Your task to perform on an android device: turn on priority inbox in the gmail app Image 0: 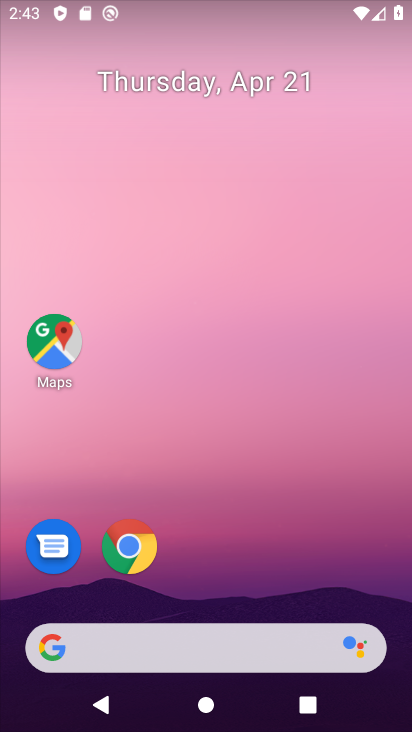
Step 0: drag from (325, 528) to (325, 31)
Your task to perform on an android device: turn on priority inbox in the gmail app Image 1: 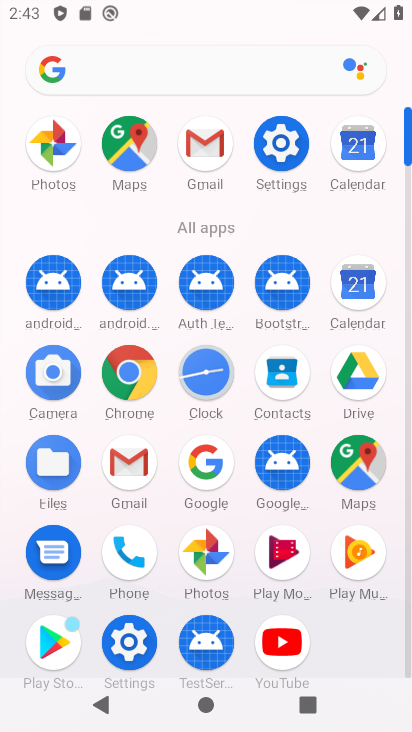
Step 1: click (210, 157)
Your task to perform on an android device: turn on priority inbox in the gmail app Image 2: 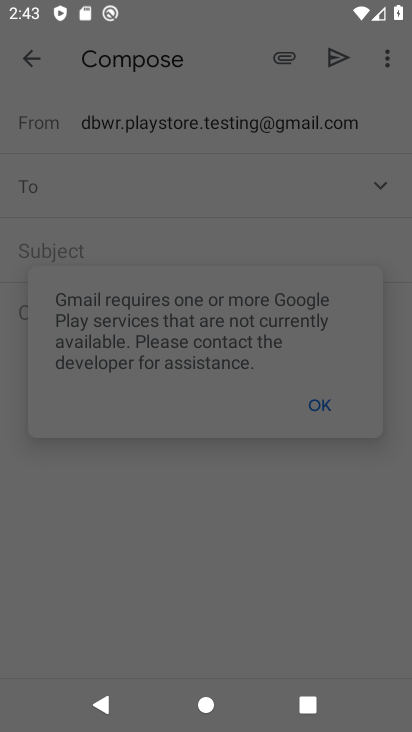
Step 2: click (329, 406)
Your task to perform on an android device: turn on priority inbox in the gmail app Image 3: 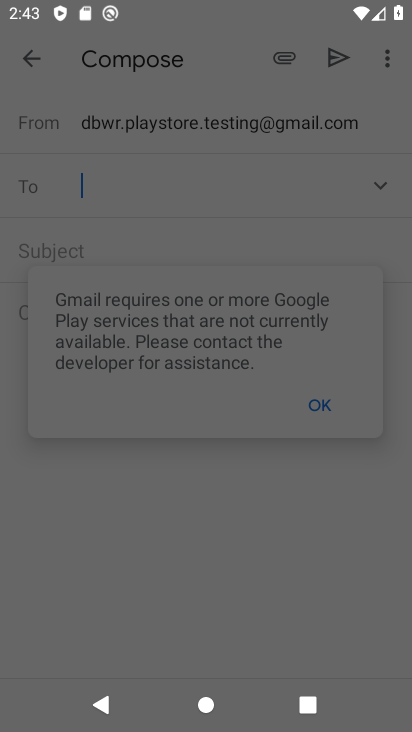
Step 3: click (328, 405)
Your task to perform on an android device: turn on priority inbox in the gmail app Image 4: 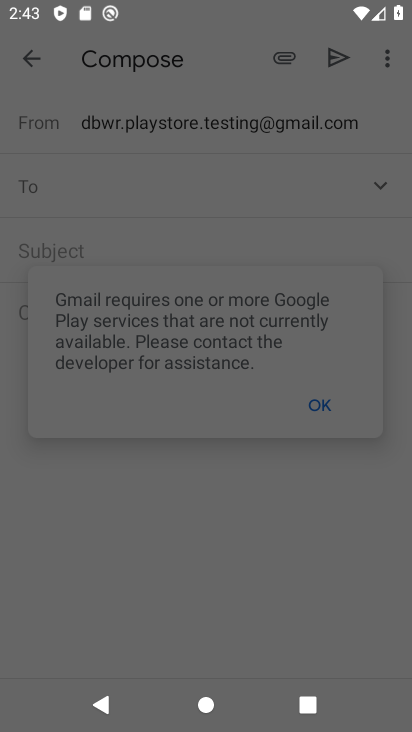
Step 4: click (246, 527)
Your task to perform on an android device: turn on priority inbox in the gmail app Image 5: 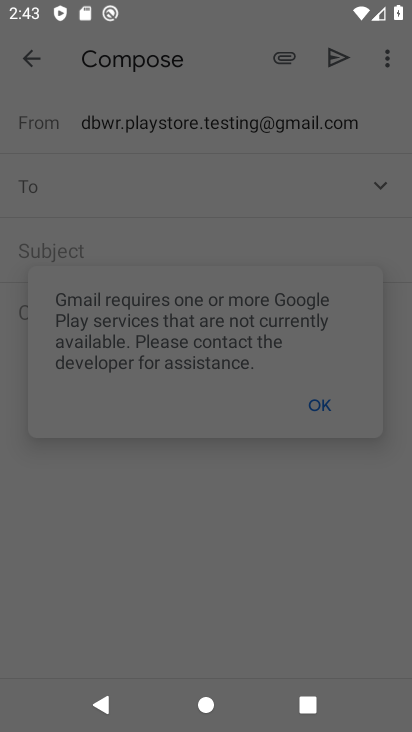
Step 5: click (102, 703)
Your task to perform on an android device: turn on priority inbox in the gmail app Image 6: 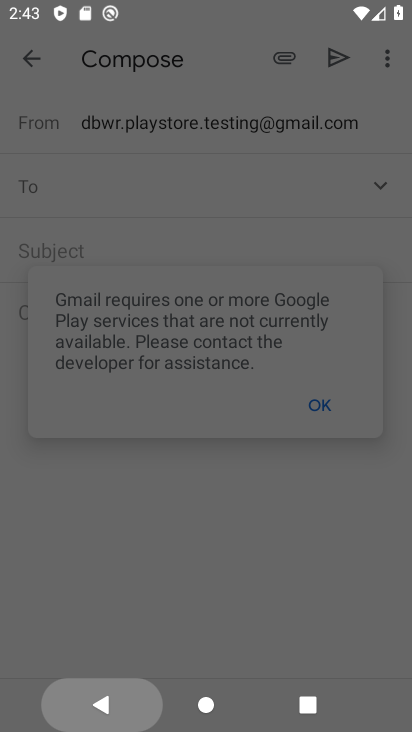
Step 6: click (102, 703)
Your task to perform on an android device: turn on priority inbox in the gmail app Image 7: 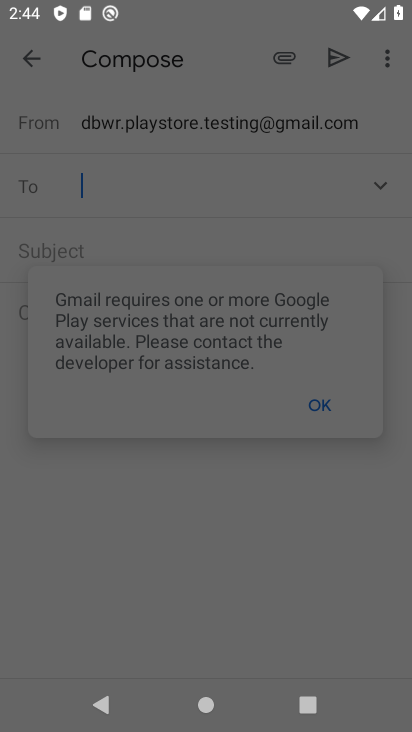
Step 7: click (94, 707)
Your task to perform on an android device: turn on priority inbox in the gmail app Image 8: 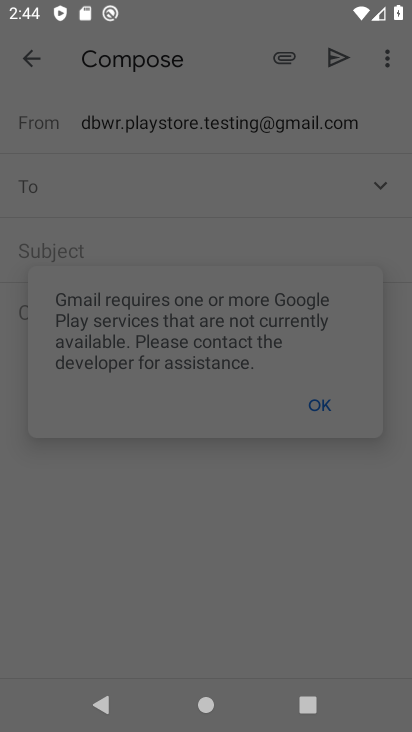
Step 8: click (87, 709)
Your task to perform on an android device: turn on priority inbox in the gmail app Image 9: 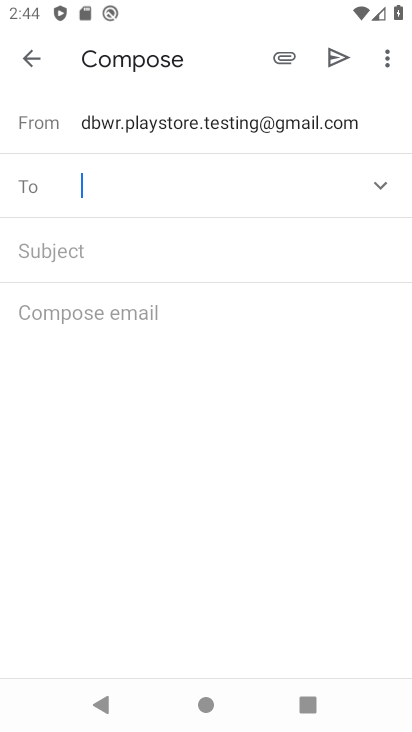
Step 9: press back button
Your task to perform on an android device: turn on priority inbox in the gmail app Image 10: 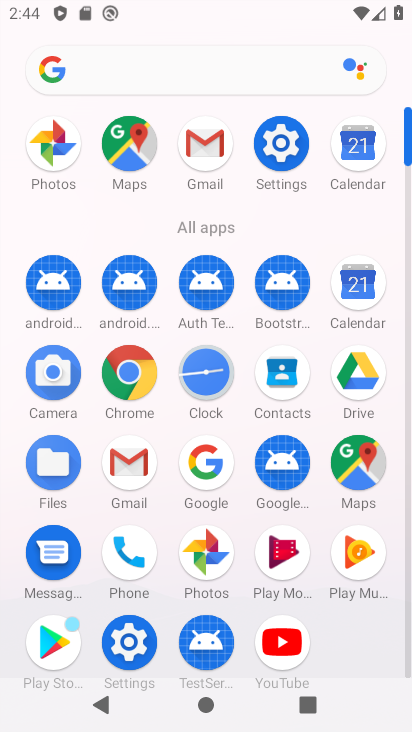
Step 10: click (199, 161)
Your task to perform on an android device: turn on priority inbox in the gmail app Image 11: 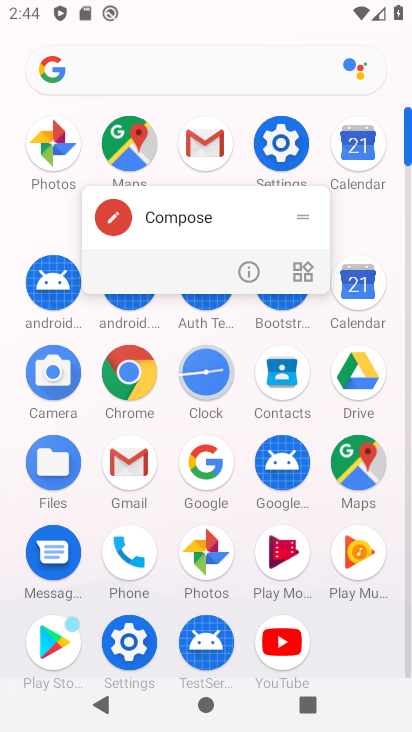
Step 11: click (188, 139)
Your task to perform on an android device: turn on priority inbox in the gmail app Image 12: 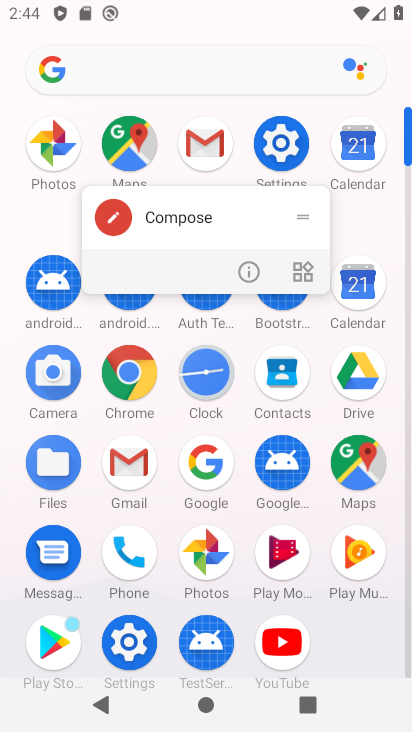
Step 12: click (195, 132)
Your task to perform on an android device: turn on priority inbox in the gmail app Image 13: 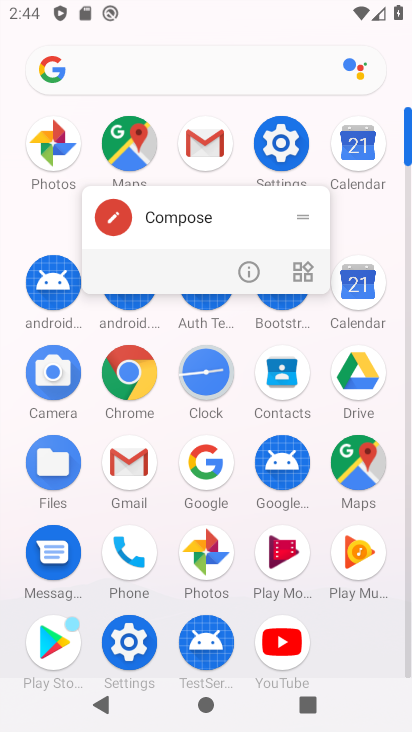
Step 13: click (196, 144)
Your task to perform on an android device: turn on priority inbox in the gmail app Image 14: 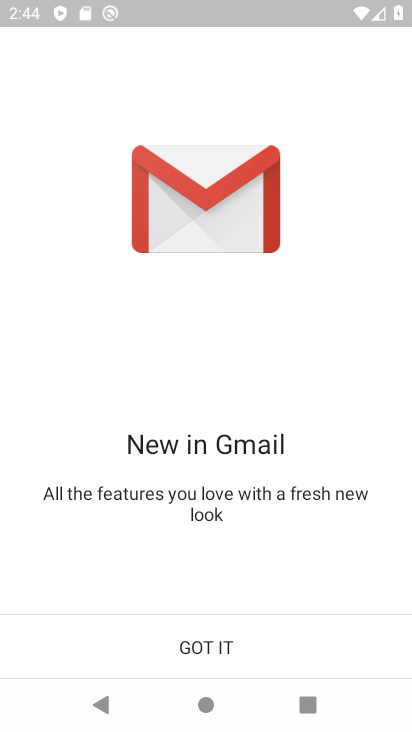
Step 14: click (200, 645)
Your task to perform on an android device: turn on priority inbox in the gmail app Image 15: 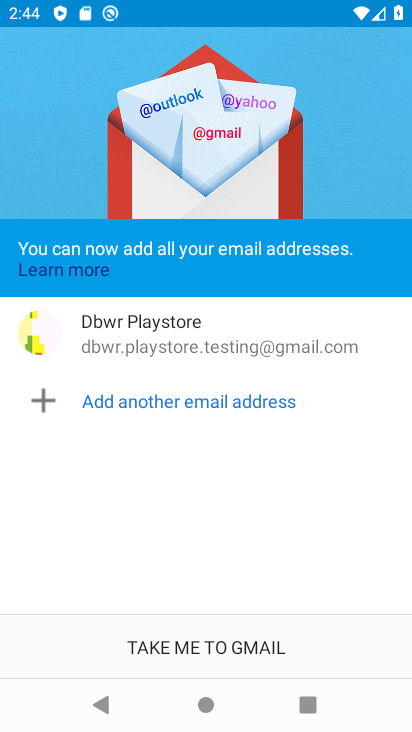
Step 15: click (216, 645)
Your task to perform on an android device: turn on priority inbox in the gmail app Image 16: 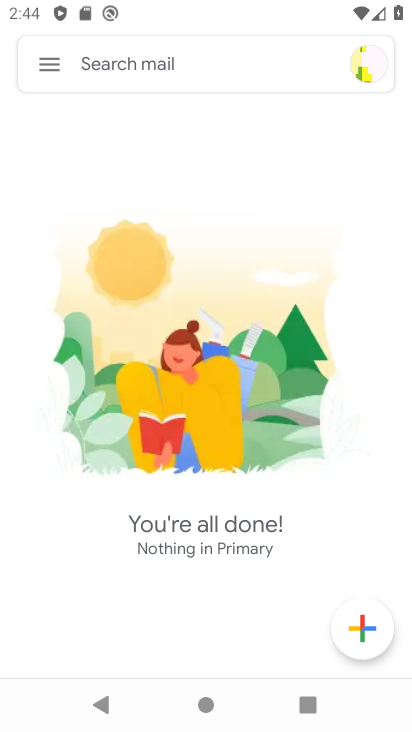
Step 16: click (60, 64)
Your task to perform on an android device: turn on priority inbox in the gmail app Image 17: 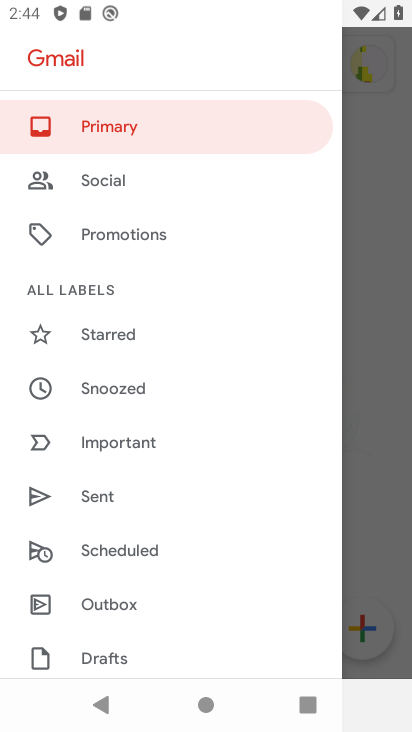
Step 17: drag from (204, 610) to (203, 238)
Your task to perform on an android device: turn on priority inbox in the gmail app Image 18: 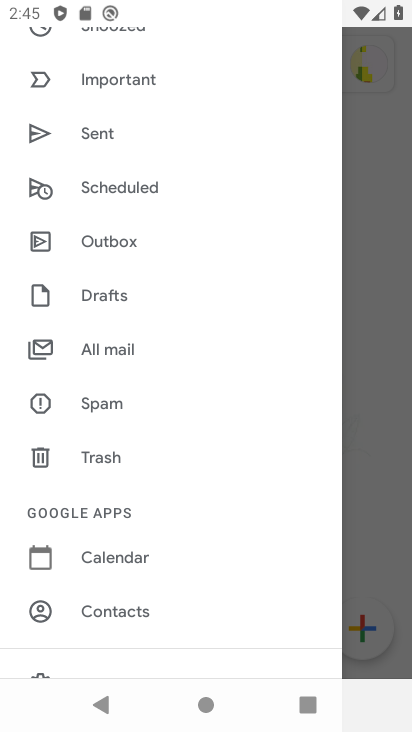
Step 18: drag from (225, 598) to (175, 241)
Your task to perform on an android device: turn on priority inbox in the gmail app Image 19: 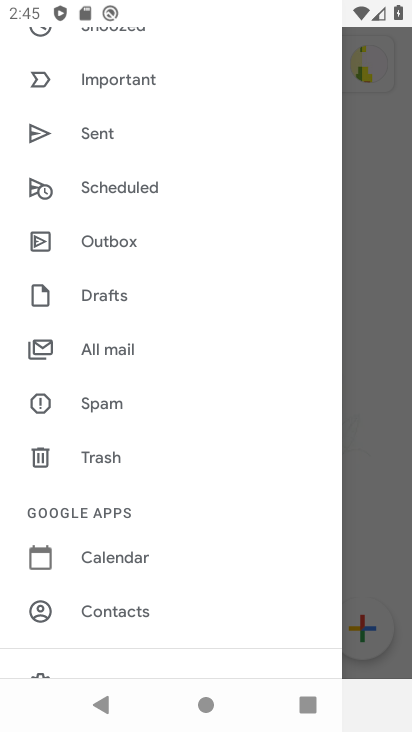
Step 19: drag from (191, 446) to (191, 116)
Your task to perform on an android device: turn on priority inbox in the gmail app Image 20: 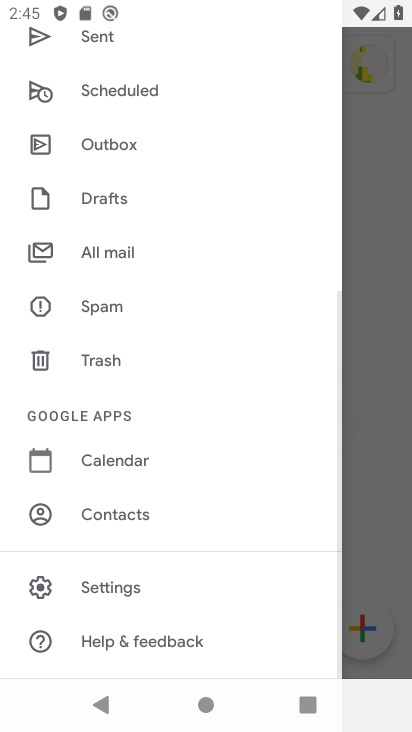
Step 20: click (90, 584)
Your task to perform on an android device: turn on priority inbox in the gmail app Image 21: 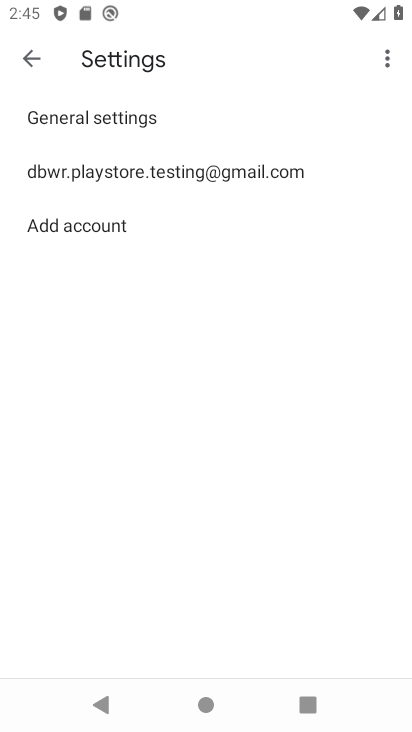
Step 21: click (102, 111)
Your task to perform on an android device: turn on priority inbox in the gmail app Image 22: 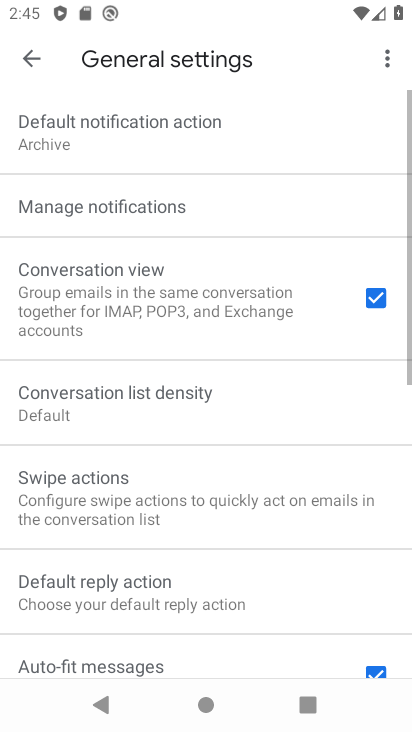
Step 22: click (30, 54)
Your task to perform on an android device: turn on priority inbox in the gmail app Image 23: 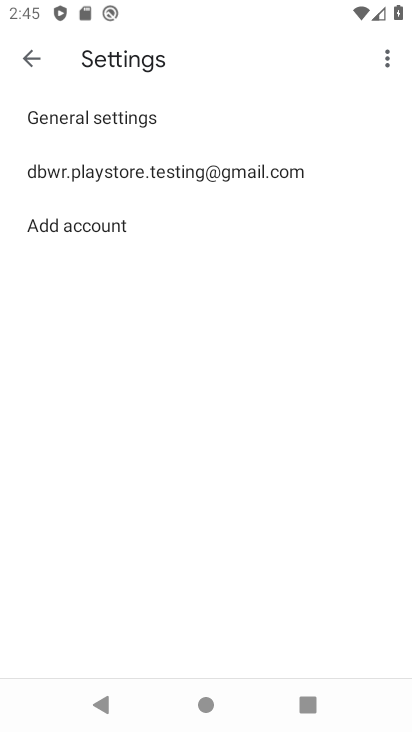
Step 23: click (95, 179)
Your task to perform on an android device: turn on priority inbox in the gmail app Image 24: 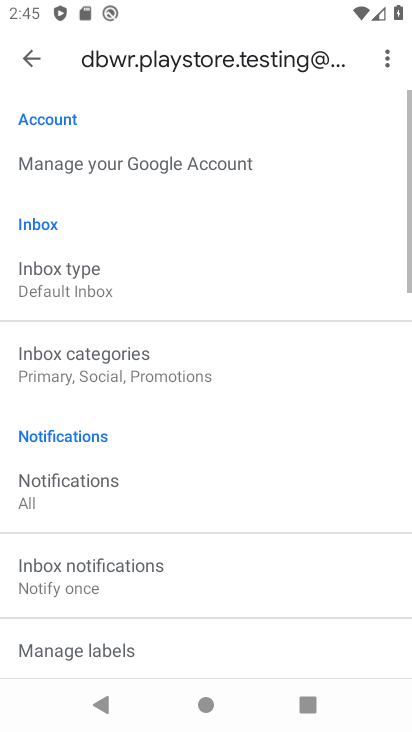
Step 24: click (50, 289)
Your task to perform on an android device: turn on priority inbox in the gmail app Image 25: 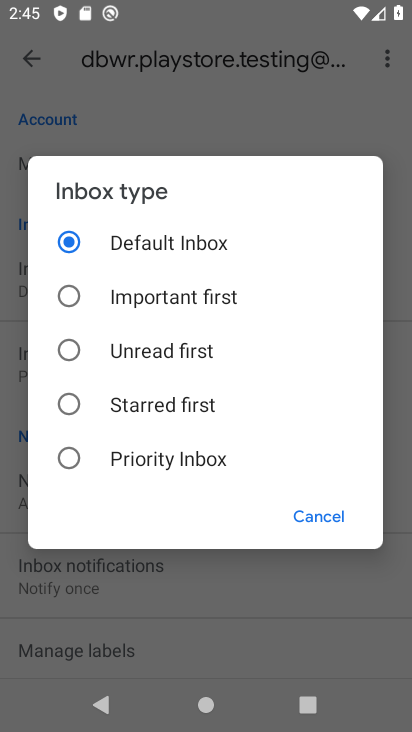
Step 25: click (136, 451)
Your task to perform on an android device: turn on priority inbox in the gmail app Image 26: 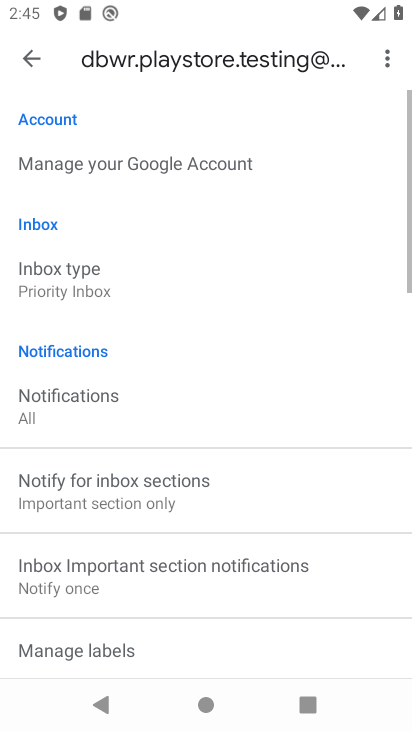
Step 26: task complete